Your task to perform on an android device: Go to notification settings Image 0: 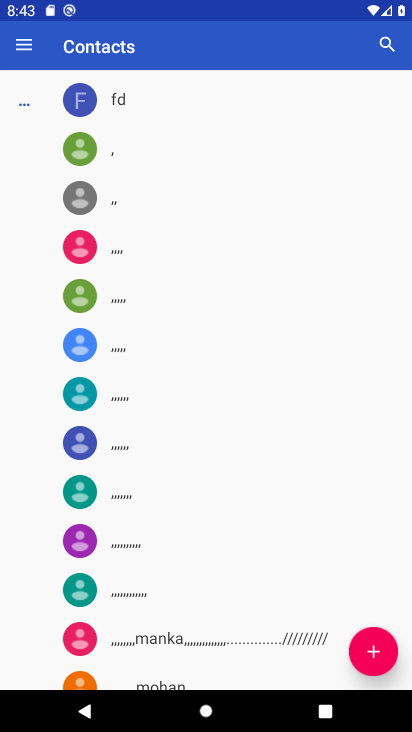
Step 0: press home button
Your task to perform on an android device: Go to notification settings Image 1: 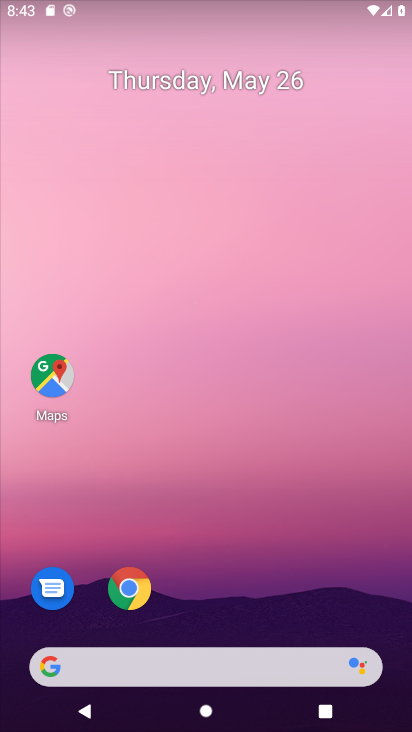
Step 1: drag from (251, 595) to (265, 2)
Your task to perform on an android device: Go to notification settings Image 2: 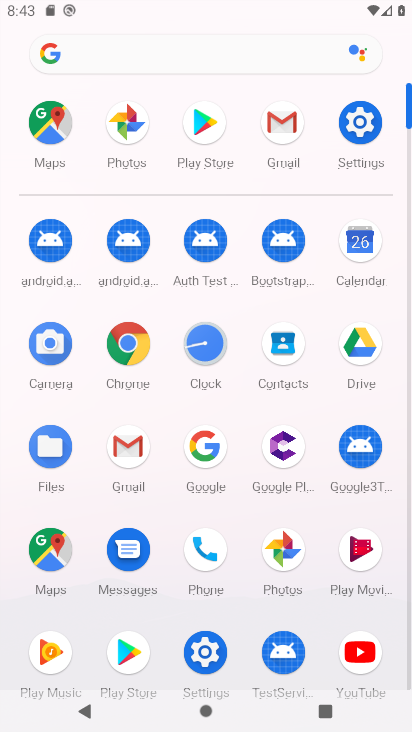
Step 2: click (355, 128)
Your task to perform on an android device: Go to notification settings Image 3: 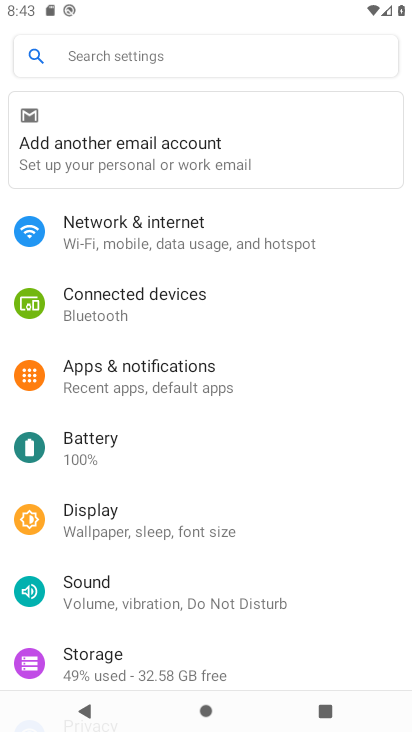
Step 3: click (114, 377)
Your task to perform on an android device: Go to notification settings Image 4: 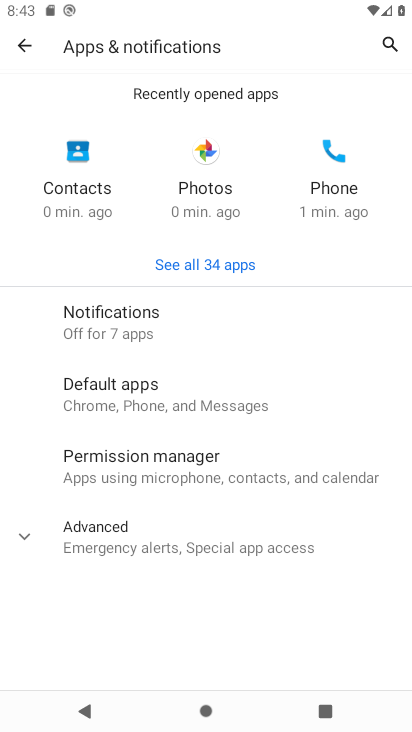
Step 4: click (104, 316)
Your task to perform on an android device: Go to notification settings Image 5: 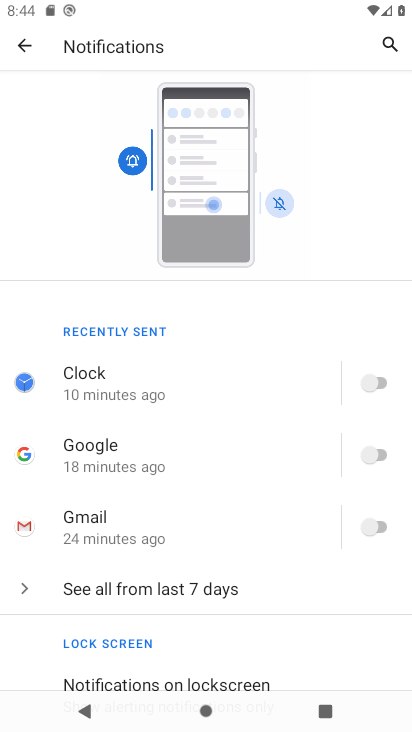
Step 5: task complete